Your task to perform on an android device: Open battery settings Image 0: 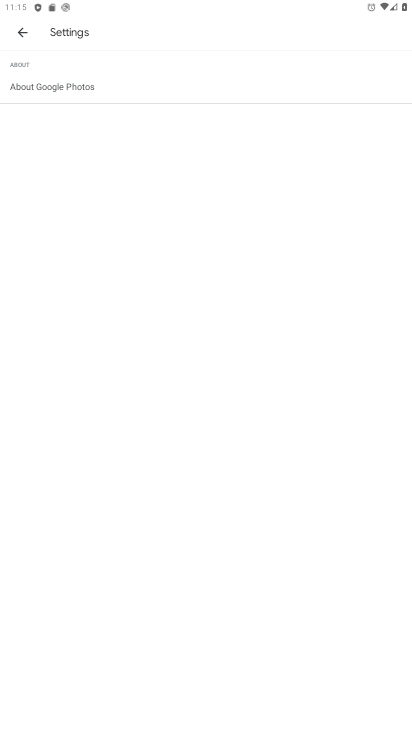
Step 0: press home button
Your task to perform on an android device: Open battery settings Image 1: 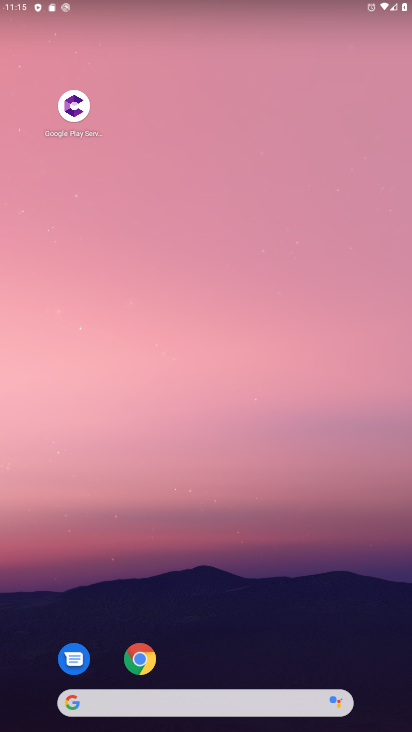
Step 1: drag from (213, 549) to (218, 99)
Your task to perform on an android device: Open battery settings Image 2: 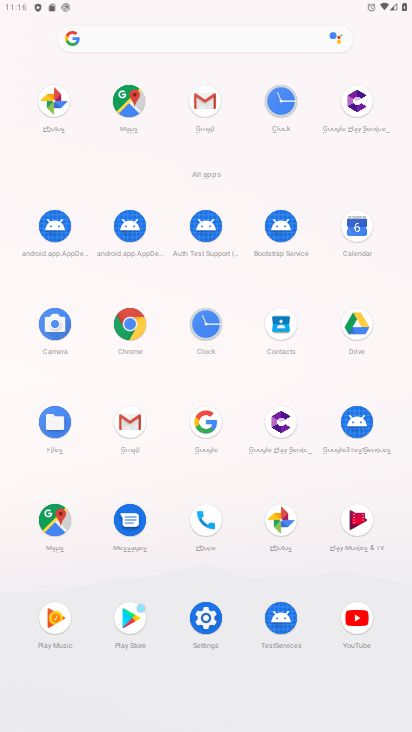
Step 2: click (203, 629)
Your task to perform on an android device: Open battery settings Image 3: 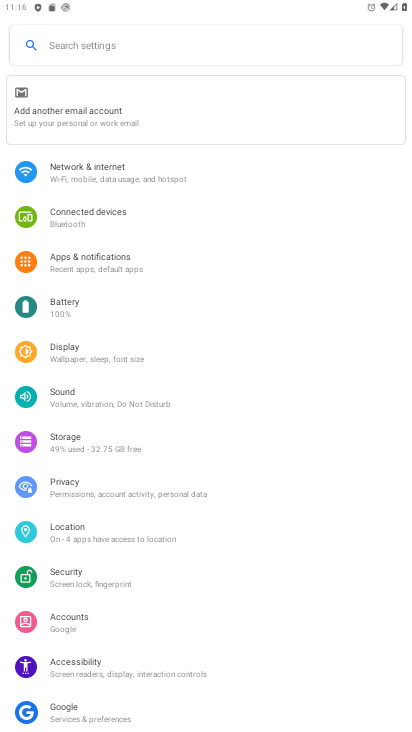
Step 3: click (92, 318)
Your task to perform on an android device: Open battery settings Image 4: 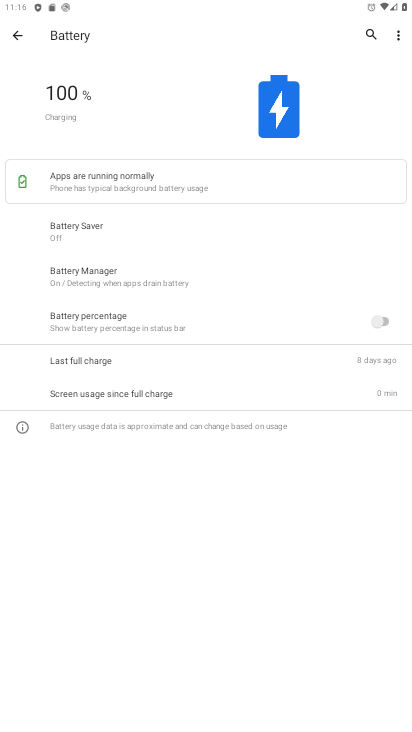
Step 4: click (390, 31)
Your task to perform on an android device: Open battery settings Image 5: 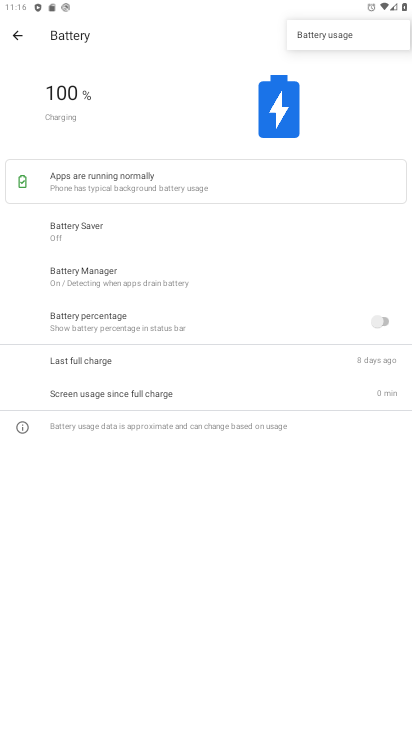
Step 5: click (331, 29)
Your task to perform on an android device: Open battery settings Image 6: 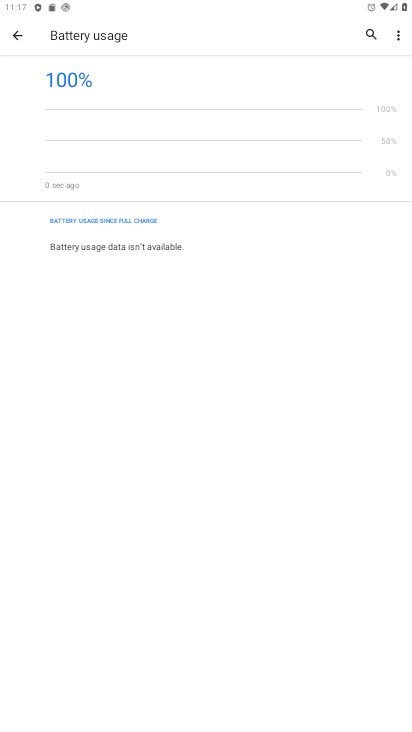
Step 6: click (400, 27)
Your task to perform on an android device: Open battery settings Image 7: 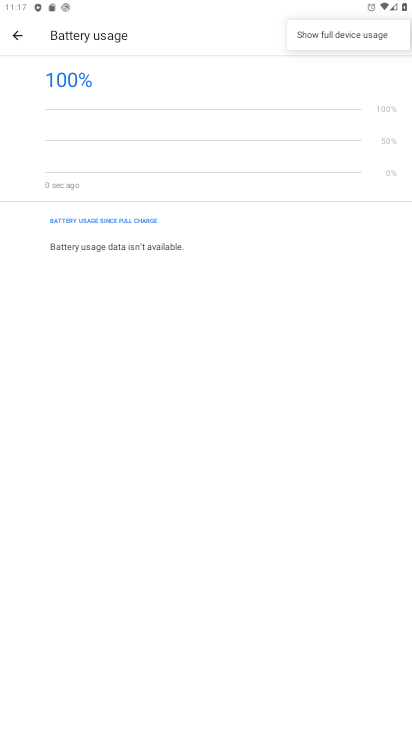
Step 7: task complete